Your task to perform on an android device: Go to accessibility settings Image 0: 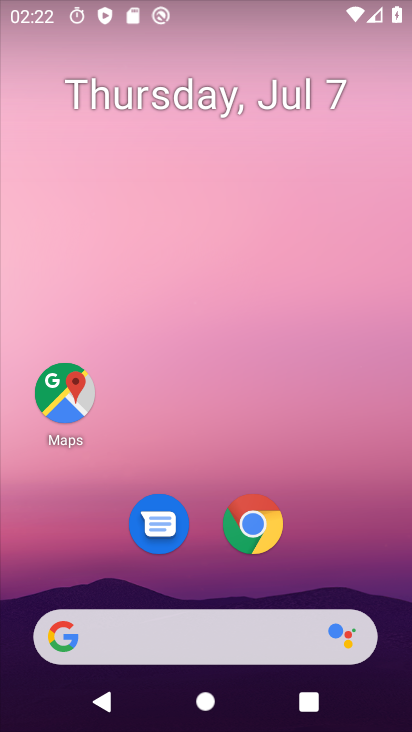
Step 0: drag from (233, 462) to (241, 1)
Your task to perform on an android device: Go to accessibility settings Image 1: 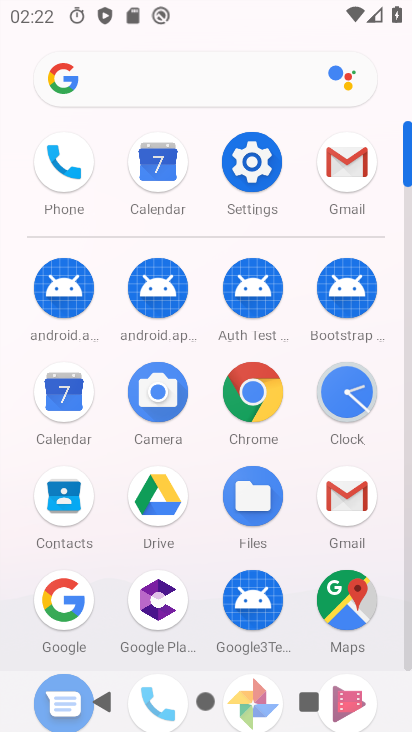
Step 1: click (250, 164)
Your task to perform on an android device: Go to accessibility settings Image 2: 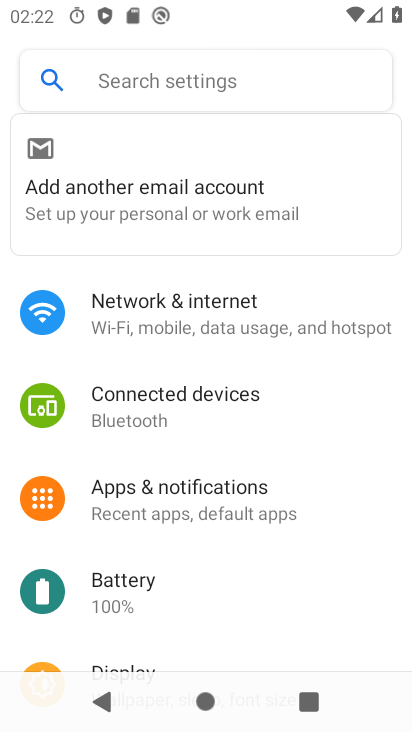
Step 2: drag from (224, 568) to (265, 108)
Your task to perform on an android device: Go to accessibility settings Image 3: 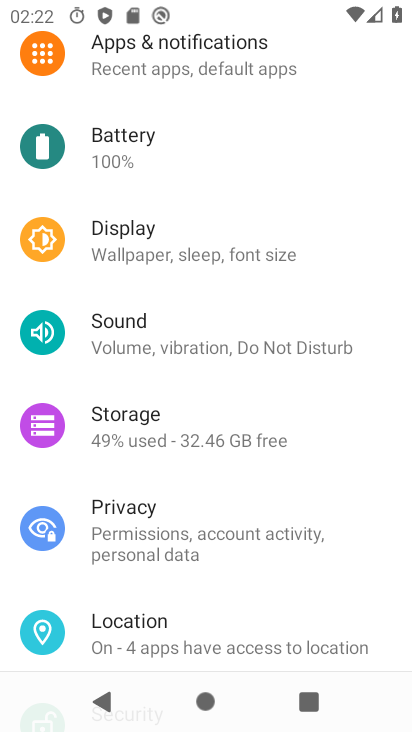
Step 3: drag from (229, 553) to (233, 40)
Your task to perform on an android device: Go to accessibility settings Image 4: 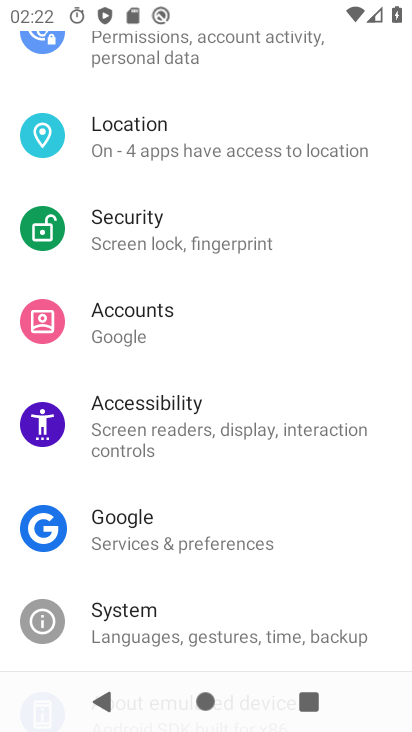
Step 4: click (211, 404)
Your task to perform on an android device: Go to accessibility settings Image 5: 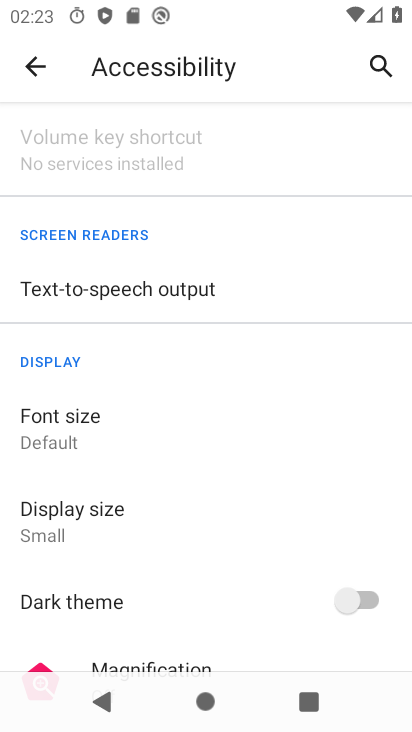
Step 5: task complete